Your task to perform on an android device: open device folders in google photos Image 0: 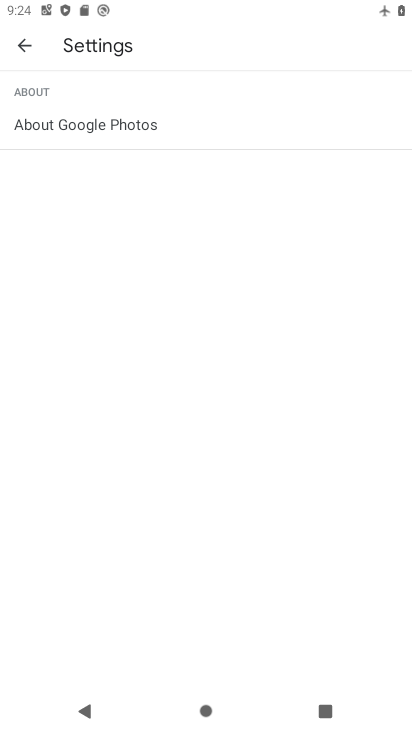
Step 0: press home button
Your task to perform on an android device: open device folders in google photos Image 1: 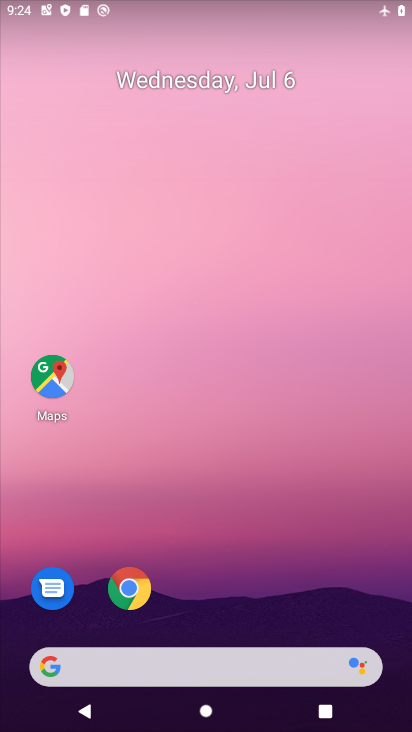
Step 1: drag from (244, 669) to (352, 161)
Your task to perform on an android device: open device folders in google photos Image 2: 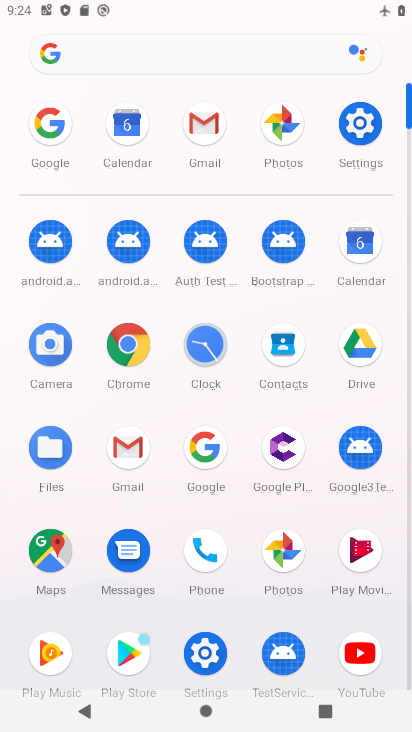
Step 2: click (281, 549)
Your task to perform on an android device: open device folders in google photos Image 3: 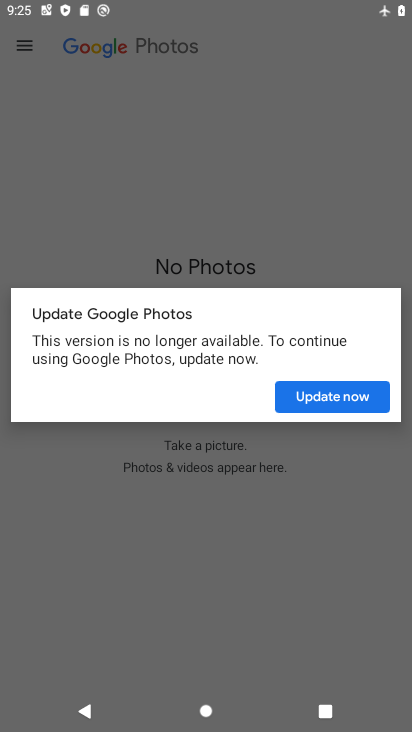
Step 3: click (344, 406)
Your task to perform on an android device: open device folders in google photos Image 4: 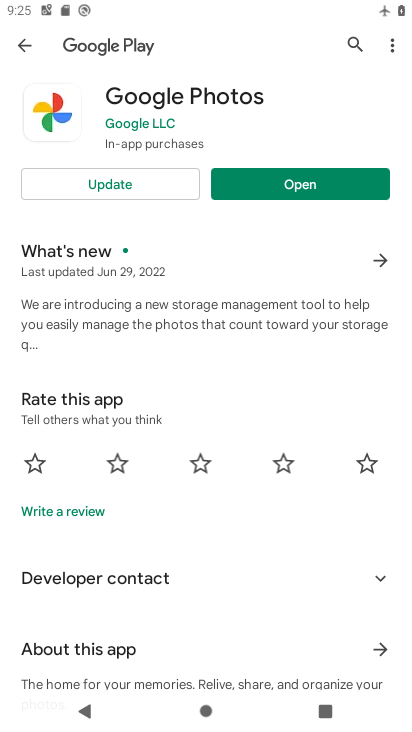
Step 4: click (132, 181)
Your task to perform on an android device: open device folders in google photos Image 5: 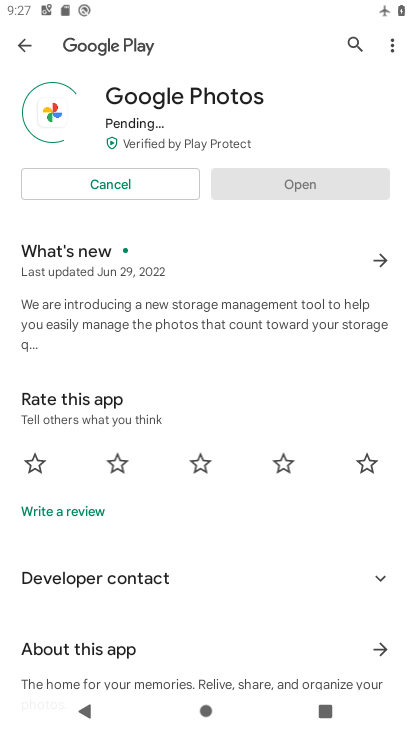
Step 5: task complete